Your task to perform on an android device: open a bookmark in the chrome app Image 0: 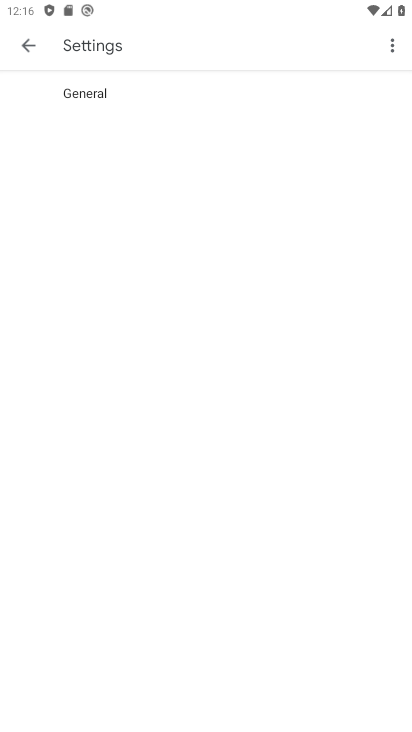
Step 0: press home button
Your task to perform on an android device: open a bookmark in the chrome app Image 1: 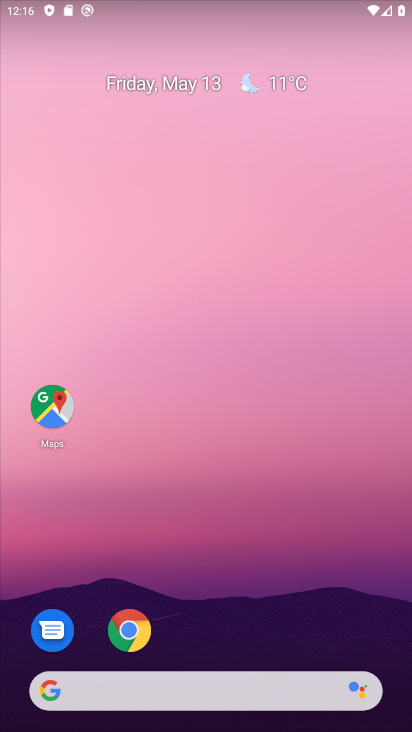
Step 1: click (116, 633)
Your task to perform on an android device: open a bookmark in the chrome app Image 2: 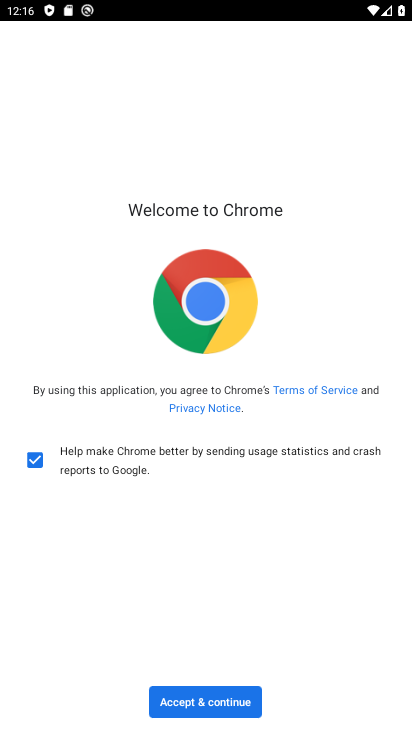
Step 2: click (199, 698)
Your task to perform on an android device: open a bookmark in the chrome app Image 3: 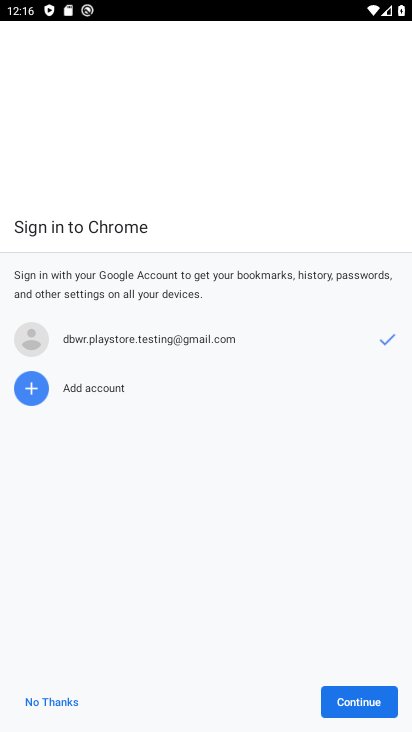
Step 3: click (60, 705)
Your task to perform on an android device: open a bookmark in the chrome app Image 4: 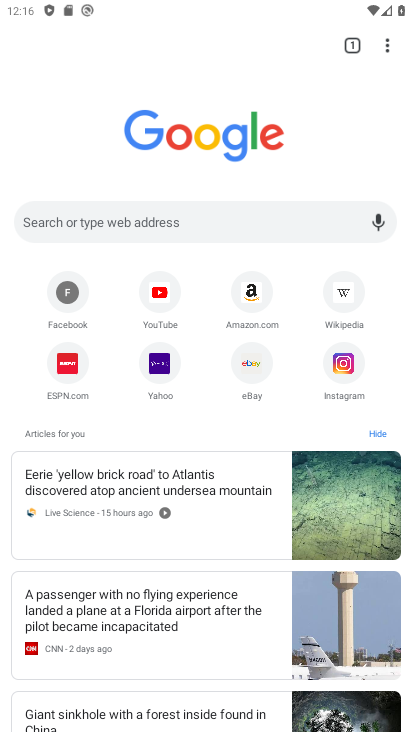
Step 4: drag from (387, 42) to (217, 171)
Your task to perform on an android device: open a bookmark in the chrome app Image 5: 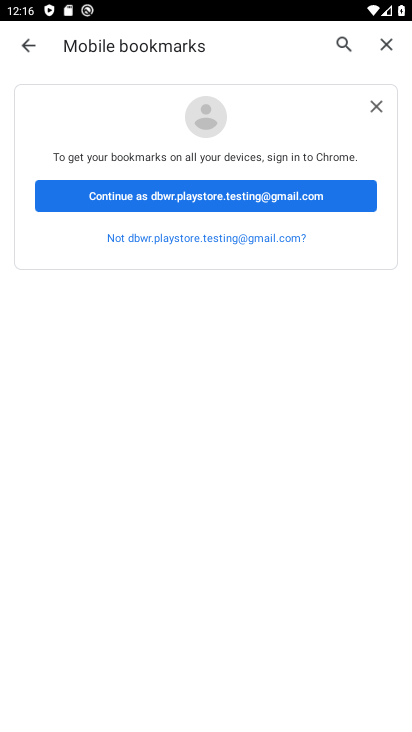
Step 5: click (186, 194)
Your task to perform on an android device: open a bookmark in the chrome app Image 6: 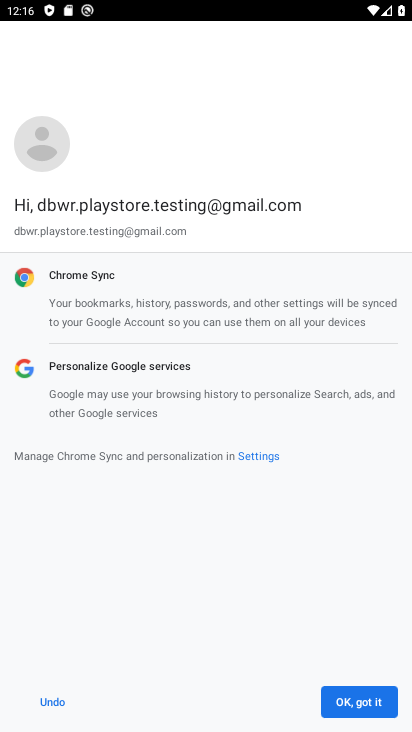
Step 6: click (350, 682)
Your task to perform on an android device: open a bookmark in the chrome app Image 7: 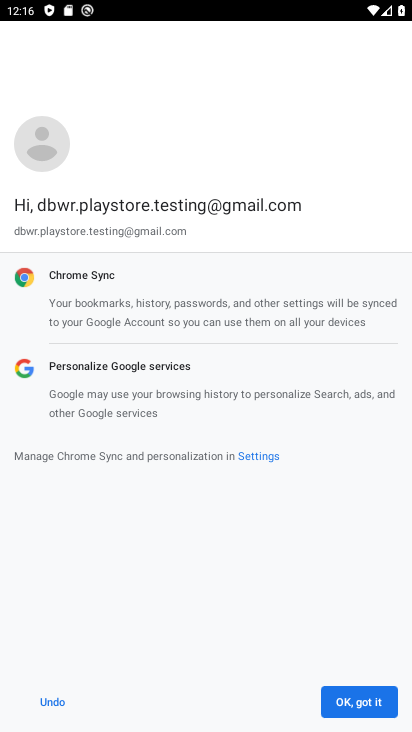
Step 7: click (346, 699)
Your task to perform on an android device: open a bookmark in the chrome app Image 8: 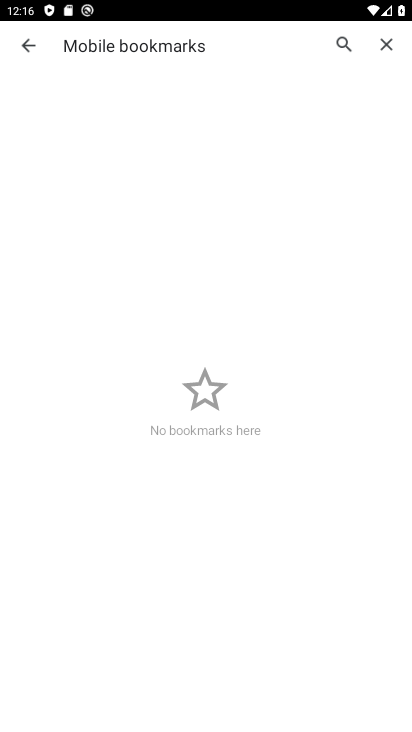
Step 8: task complete